Your task to perform on an android device: Open settings on Google Maps Image 0: 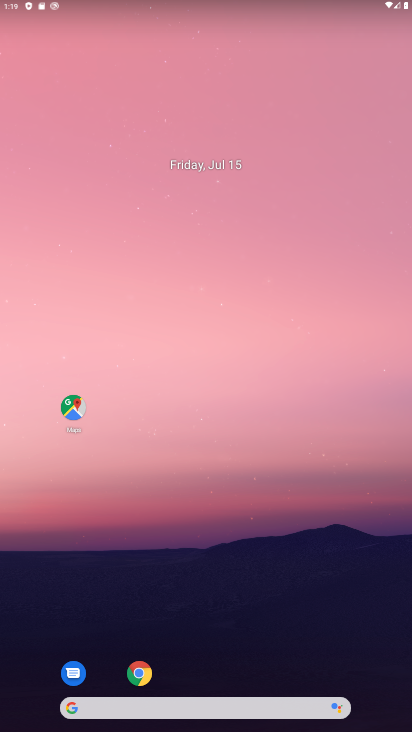
Step 0: drag from (264, 618) to (287, 34)
Your task to perform on an android device: Open settings on Google Maps Image 1: 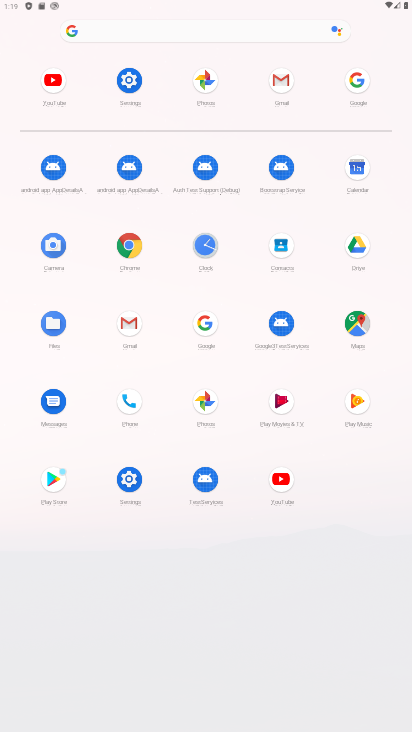
Step 1: click (353, 327)
Your task to perform on an android device: Open settings on Google Maps Image 2: 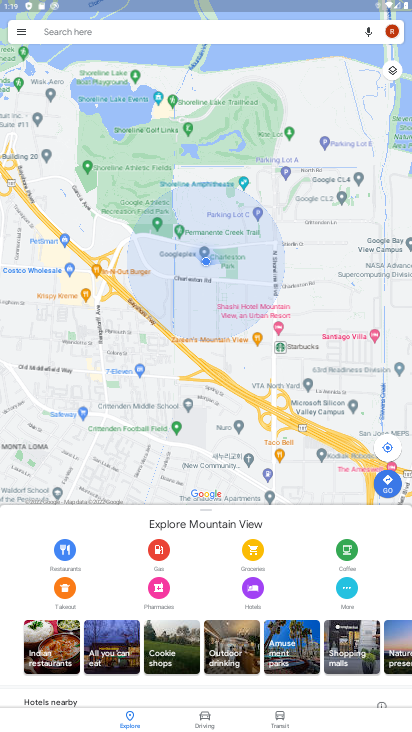
Step 2: click (18, 37)
Your task to perform on an android device: Open settings on Google Maps Image 3: 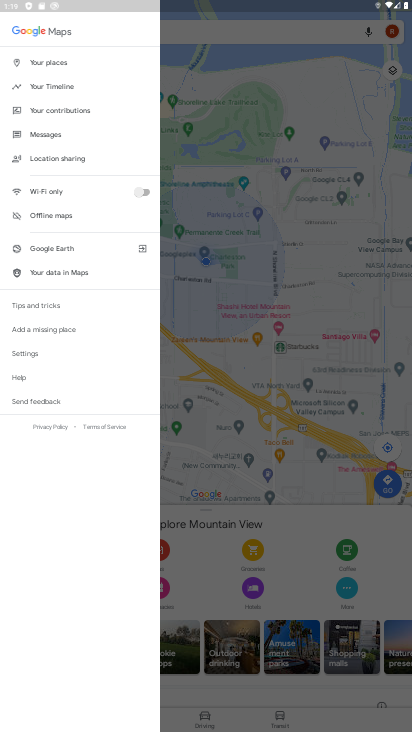
Step 3: click (20, 351)
Your task to perform on an android device: Open settings on Google Maps Image 4: 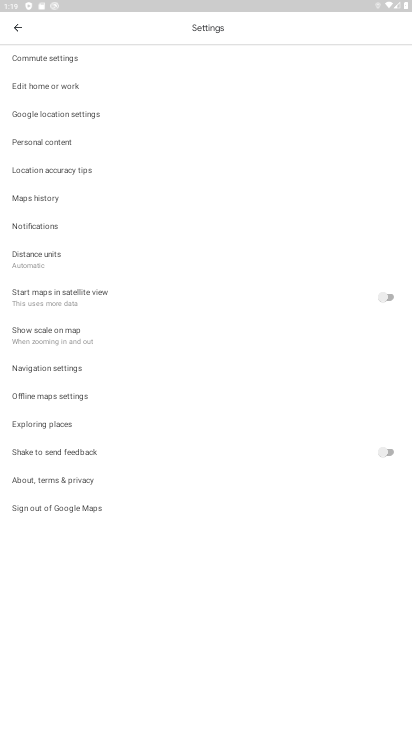
Step 4: task complete